Your task to perform on an android device: toggle improve location accuracy Image 0: 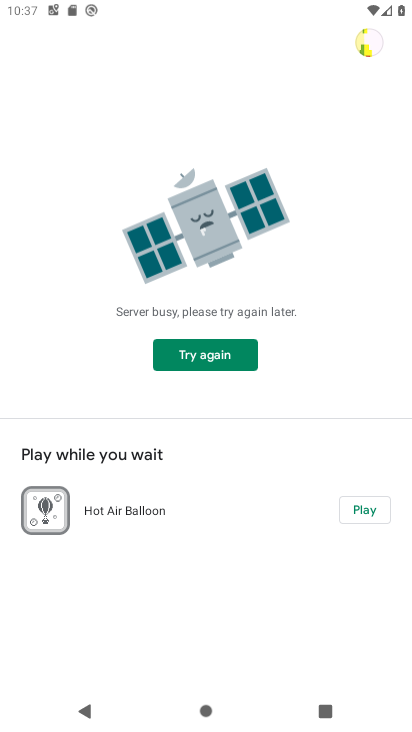
Step 0: press home button
Your task to perform on an android device: toggle improve location accuracy Image 1: 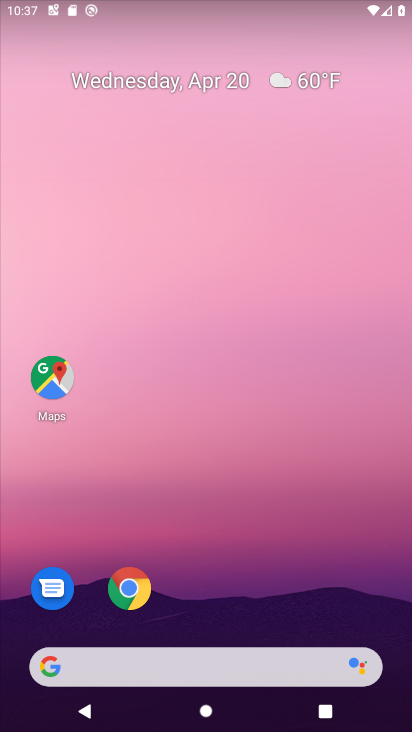
Step 1: drag from (231, 561) to (206, 46)
Your task to perform on an android device: toggle improve location accuracy Image 2: 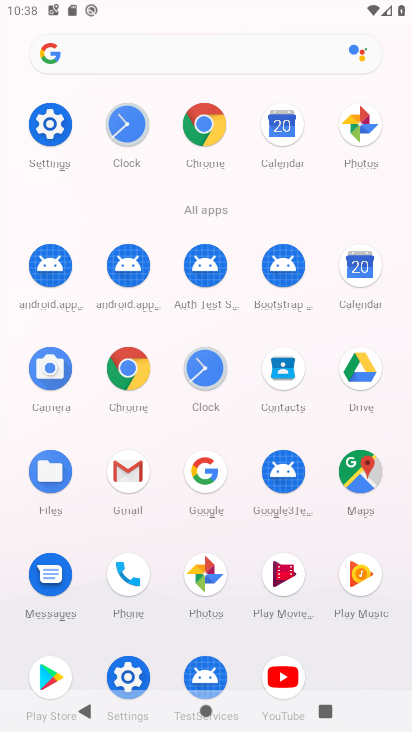
Step 2: click (48, 115)
Your task to perform on an android device: toggle improve location accuracy Image 3: 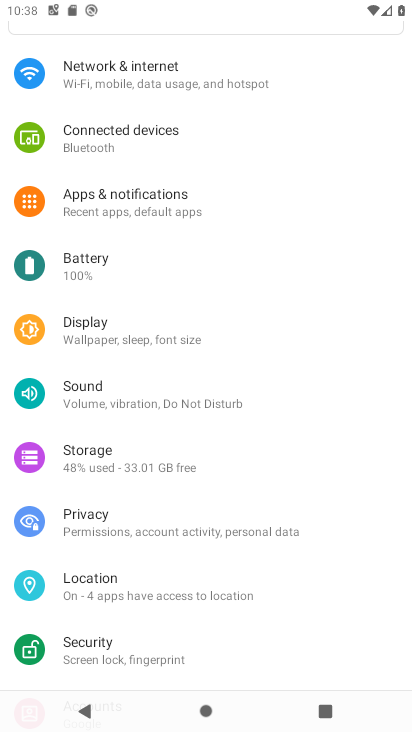
Step 3: click (83, 579)
Your task to perform on an android device: toggle improve location accuracy Image 4: 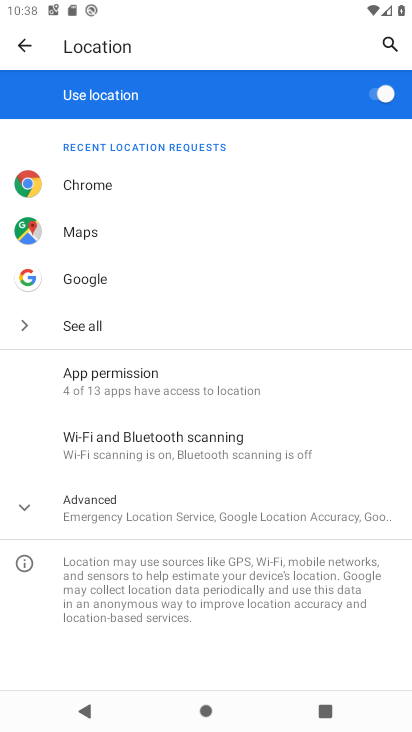
Step 4: click (79, 509)
Your task to perform on an android device: toggle improve location accuracy Image 5: 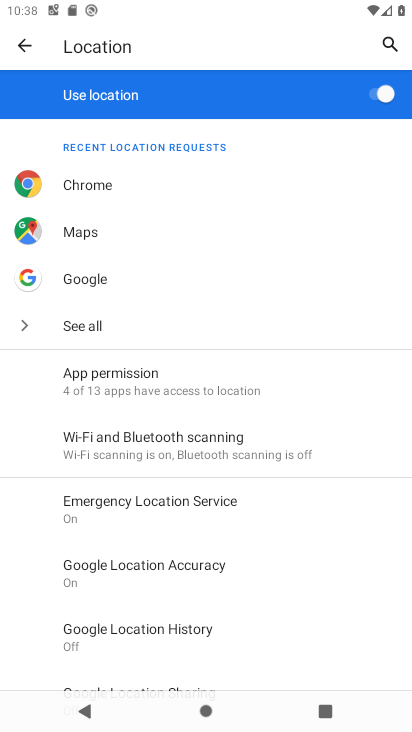
Step 5: click (179, 567)
Your task to perform on an android device: toggle improve location accuracy Image 6: 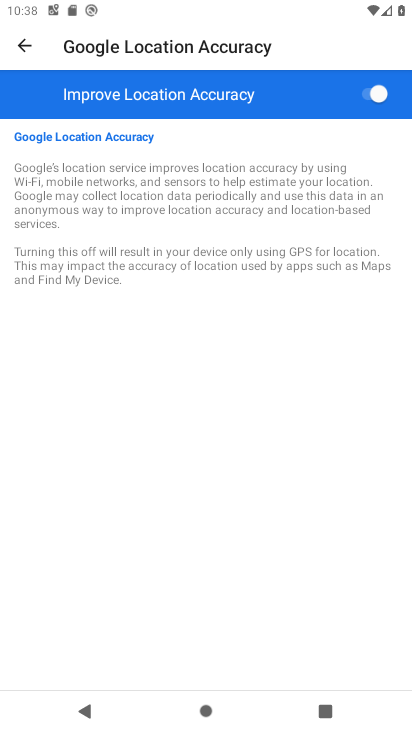
Step 6: click (376, 104)
Your task to perform on an android device: toggle improve location accuracy Image 7: 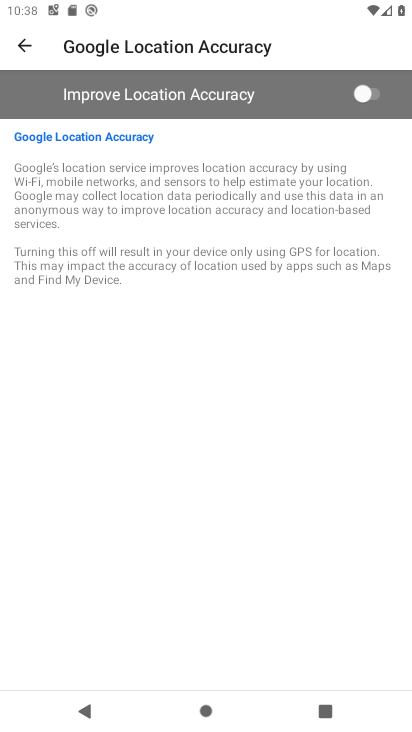
Step 7: task complete